Your task to perform on an android device: Open the Play Movies app and select the watchlist tab. Image 0: 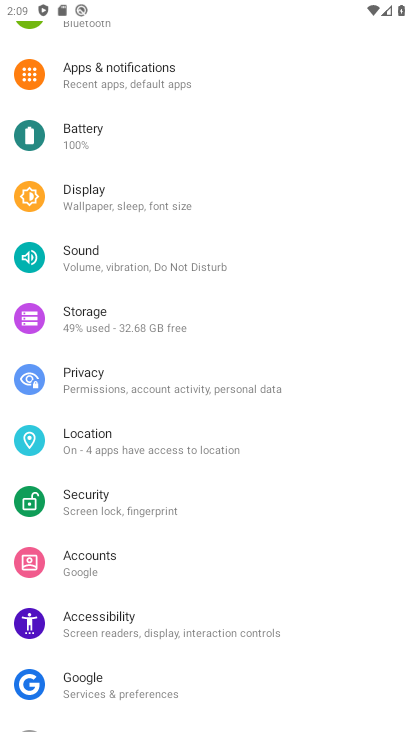
Step 0: press home button
Your task to perform on an android device: Open the Play Movies app and select the watchlist tab. Image 1: 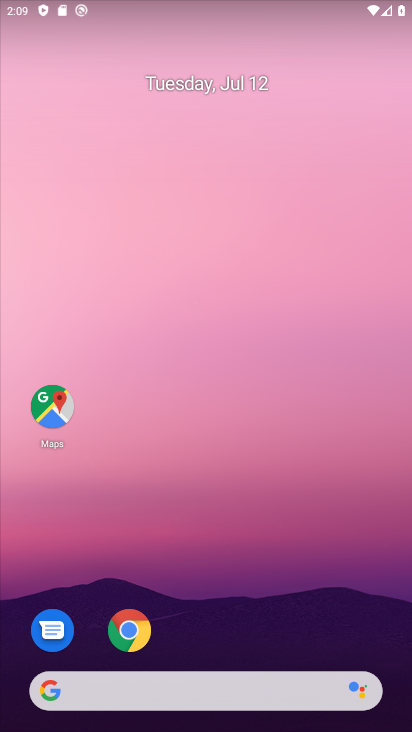
Step 1: drag from (347, 639) to (277, 9)
Your task to perform on an android device: Open the Play Movies app and select the watchlist tab. Image 2: 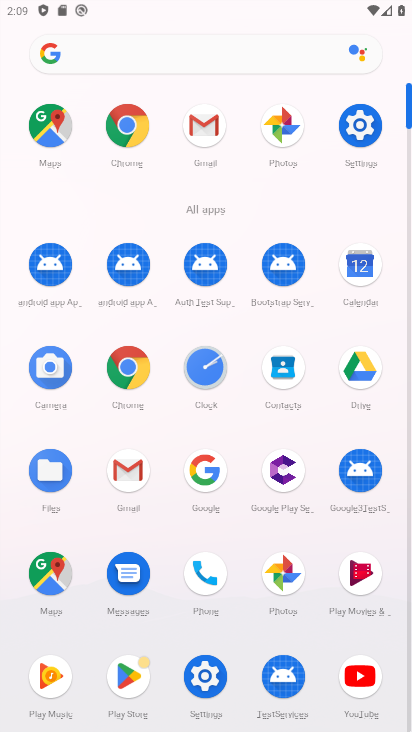
Step 2: click (365, 574)
Your task to perform on an android device: Open the Play Movies app and select the watchlist tab. Image 3: 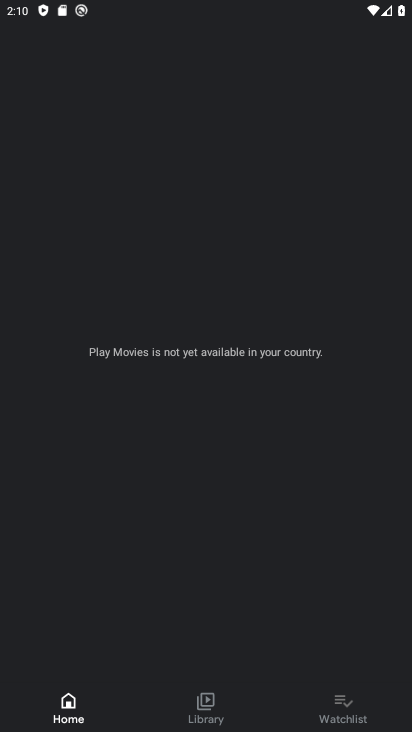
Step 3: click (337, 700)
Your task to perform on an android device: Open the Play Movies app and select the watchlist tab. Image 4: 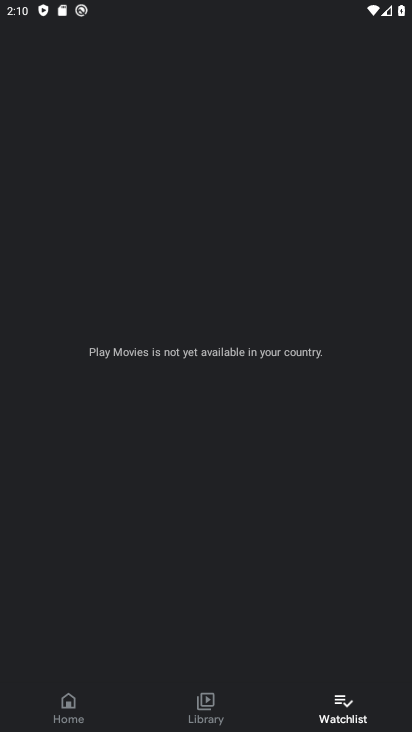
Step 4: task complete